Your task to perform on an android device: What's the weather? Image 0: 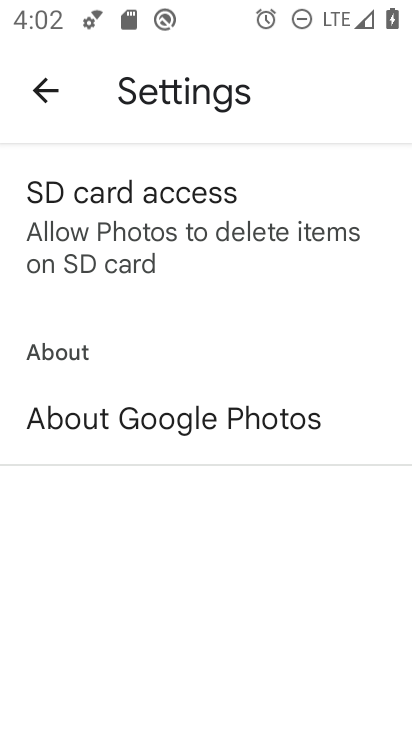
Step 0: press home button
Your task to perform on an android device: What's the weather? Image 1: 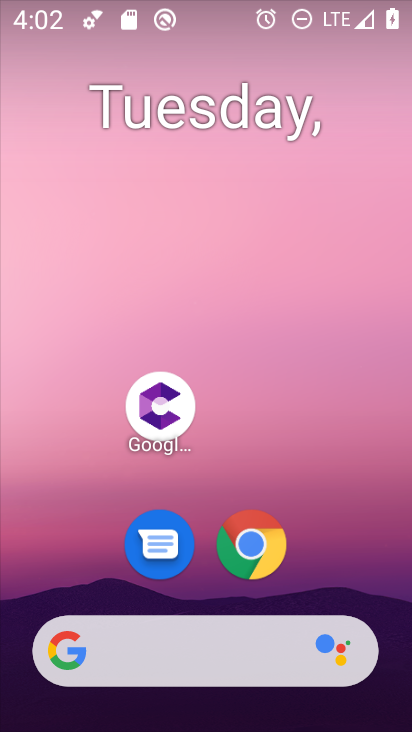
Step 1: click (225, 669)
Your task to perform on an android device: What's the weather? Image 2: 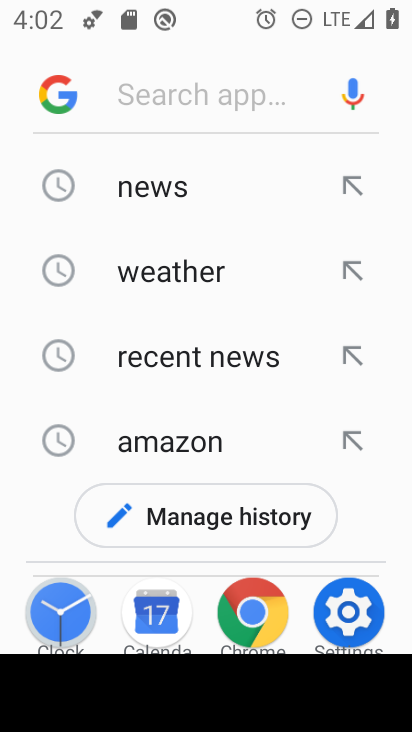
Step 2: click (183, 271)
Your task to perform on an android device: What's the weather? Image 3: 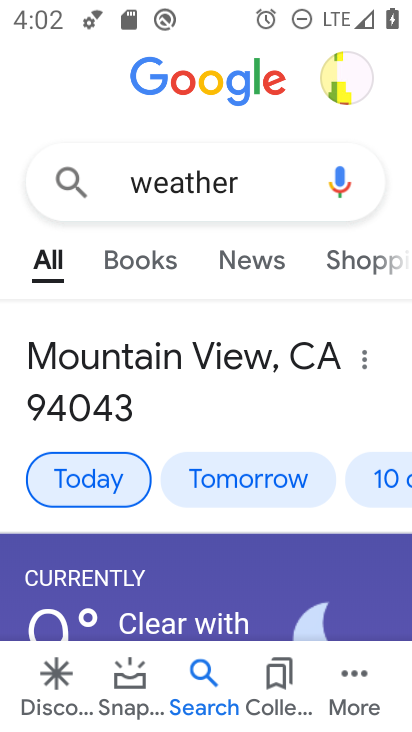
Step 3: task complete